Your task to perform on an android device: check data usage Image 0: 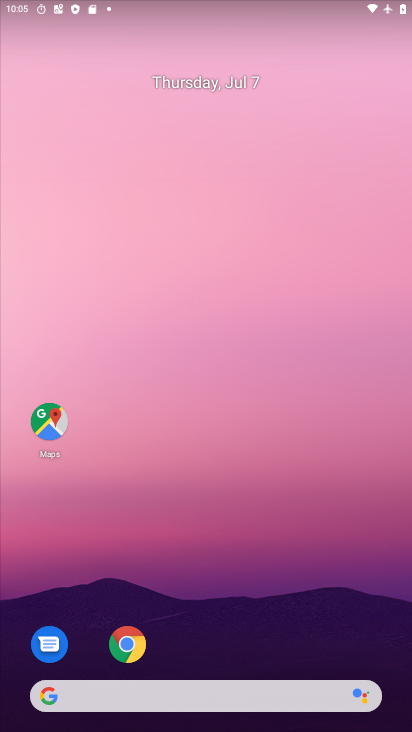
Step 0: drag from (287, 543) to (214, 76)
Your task to perform on an android device: check data usage Image 1: 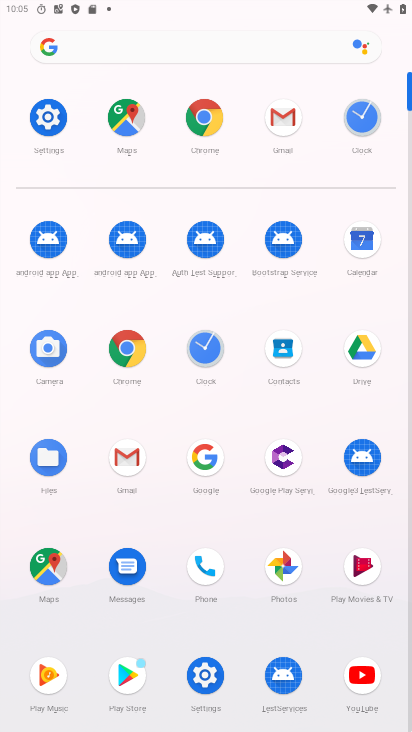
Step 1: click (46, 116)
Your task to perform on an android device: check data usage Image 2: 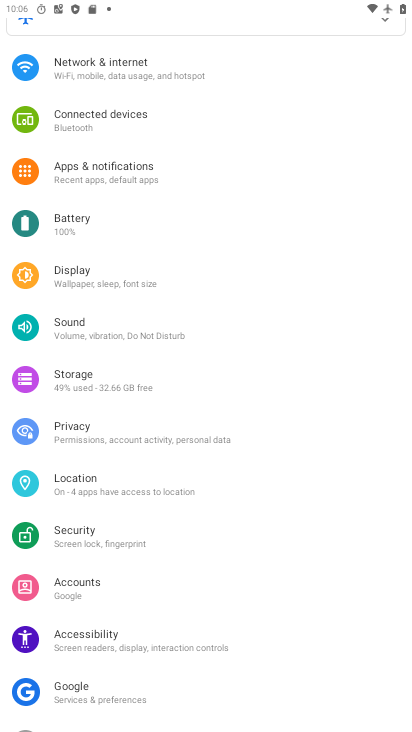
Step 2: click (138, 64)
Your task to perform on an android device: check data usage Image 3: 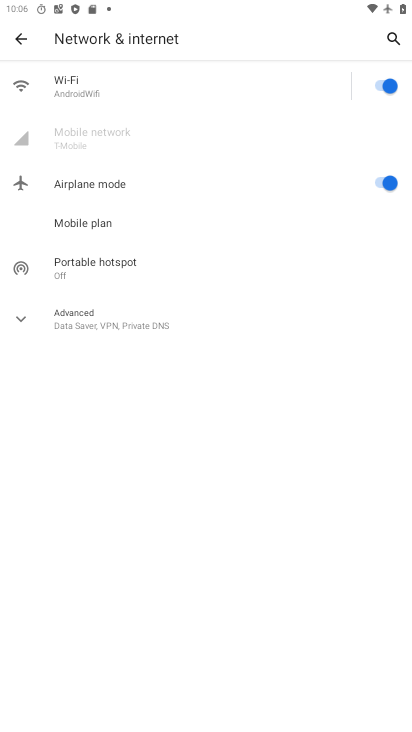
Step 3: click (86, 90)
Your task to perform on an android device: check data usage Image 4: 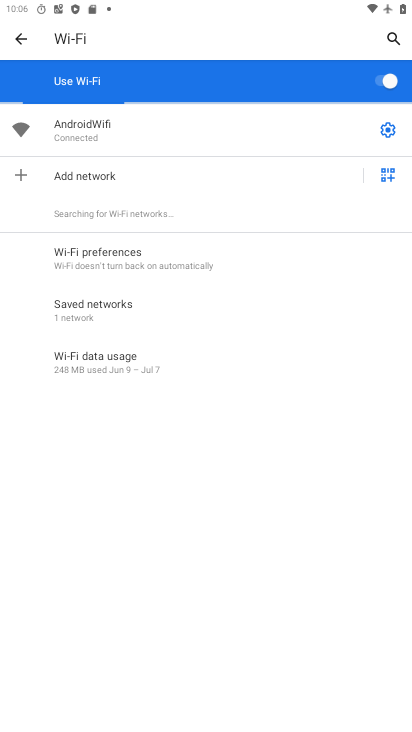
Step 4: click (124, 365)
Your task to perform on an android device: check data usage Image 5: 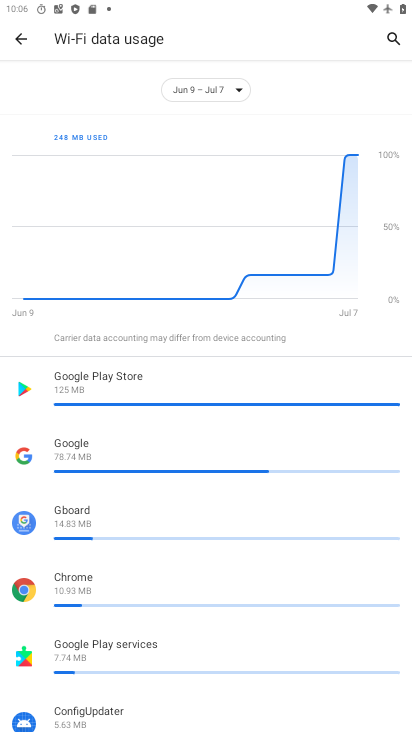
Step 5: task complete